Your task to perform on an android device: see creations saved in the google photos Image 0: 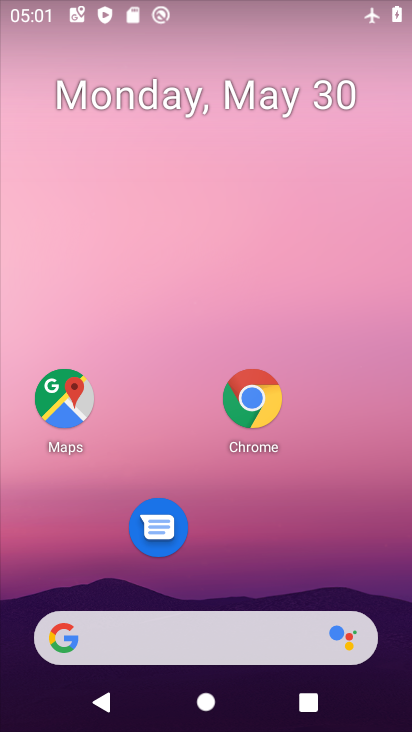
Step 0: drag from (232, 718) to (237, 83)
Your task to perform on an android device: see creations saved in the google photos Image 1: 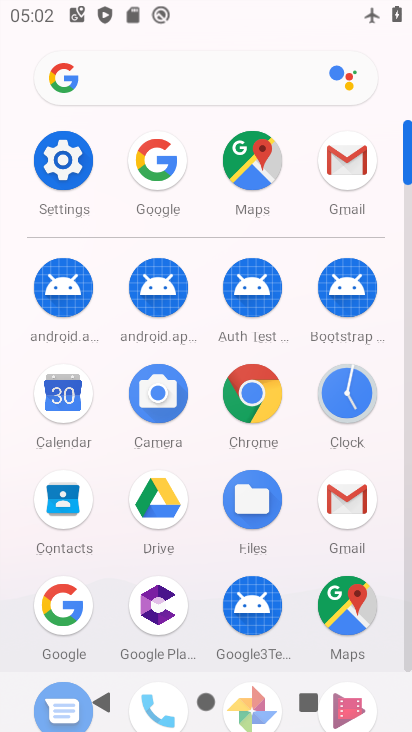
Step 1: drag from (295, 618) to (300, 527)
Your task to perform on an android device: see creations saved in the google photos Image 2: 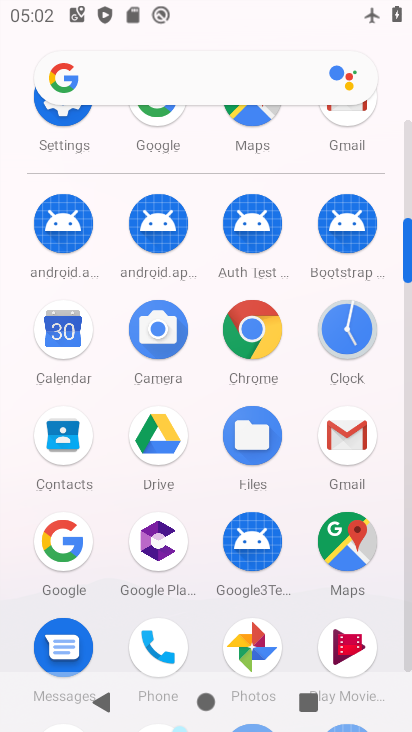
Step 2: click (306, 206)
Your task to perform on an android device: see creations saved in the google photos Image 3: 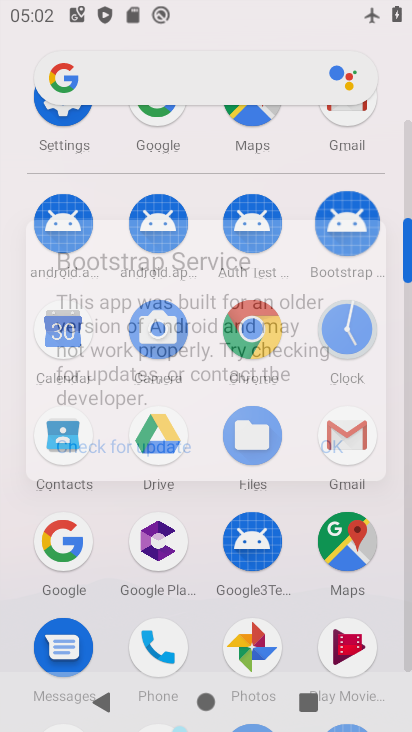
Step 3: click (259, 640)
Your task to perform on an android device: see creations saved in the google photos Image 4: 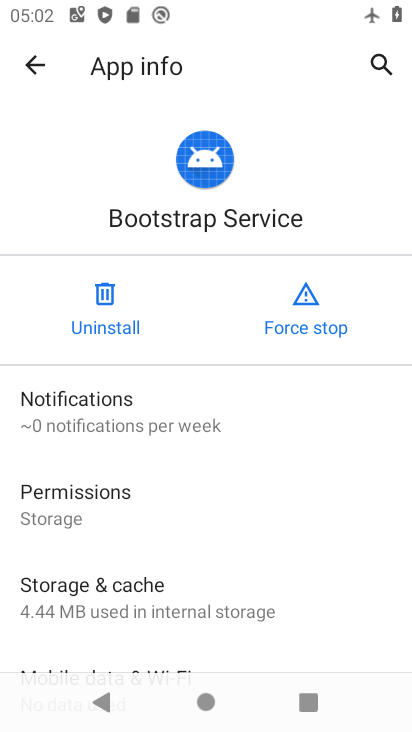
Step 4: press home button
Your task to perform on an android device: see creations saved in the google photos Image 5: 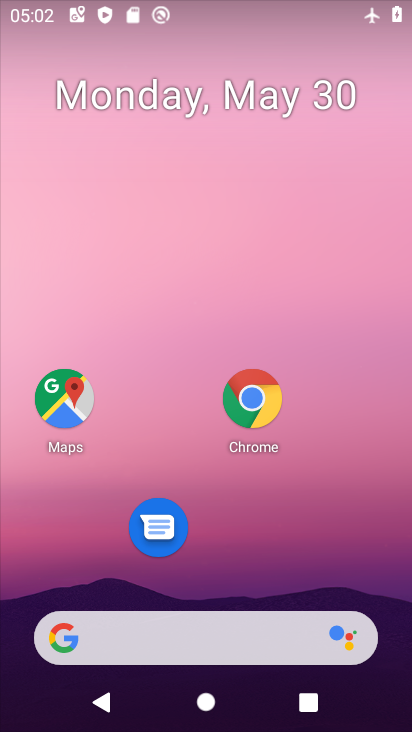
Step 5: drag from (233, 712) to (240, 1)
Your task to perform on an android device: see creations saved in the google photos Image 6: 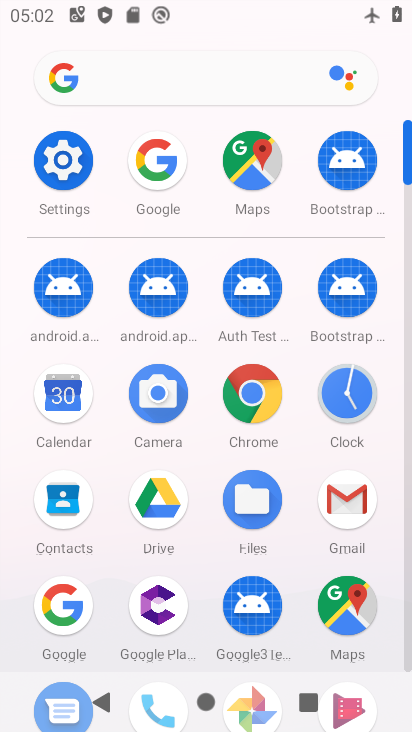
Step 6: drag from (299, 394) to (299, 189)
Your task to perform on an android device: see creations saved in the google photos Image 7: 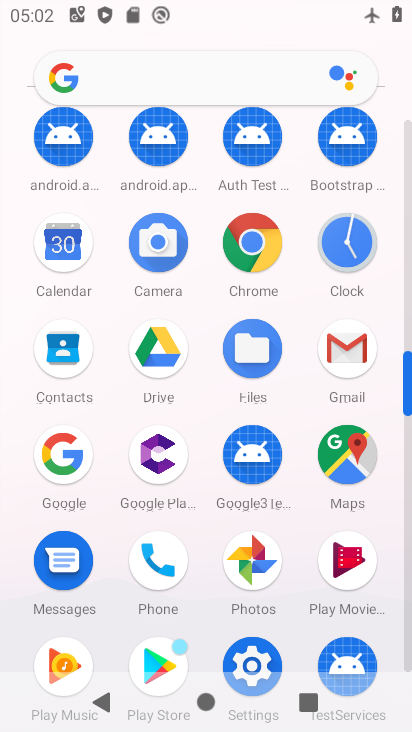
Step 7: click (252, 556)
Your task to perform on an android device: see creations saved in the google photos Image 8: 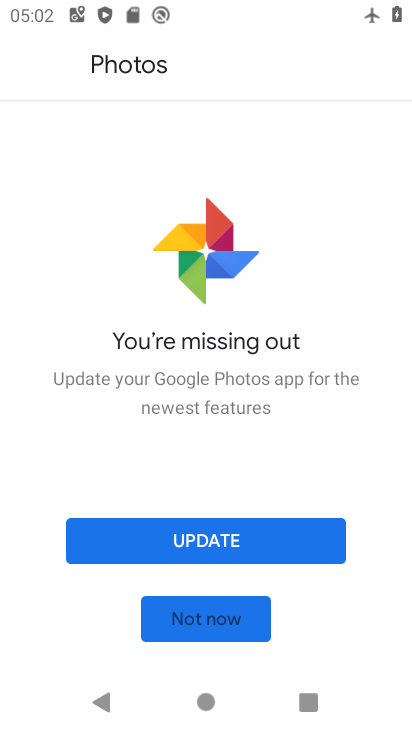
Step 8: task complete